Your task to perform on an android device: change the clock display to analog Image 0: 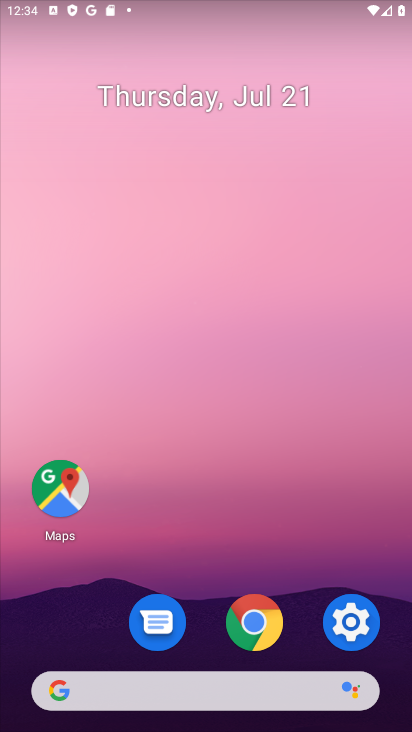
Step 0: drag from (207, 707) to (320, 135)
Your task to perform on an android device: change the clock display to analog Image 1: 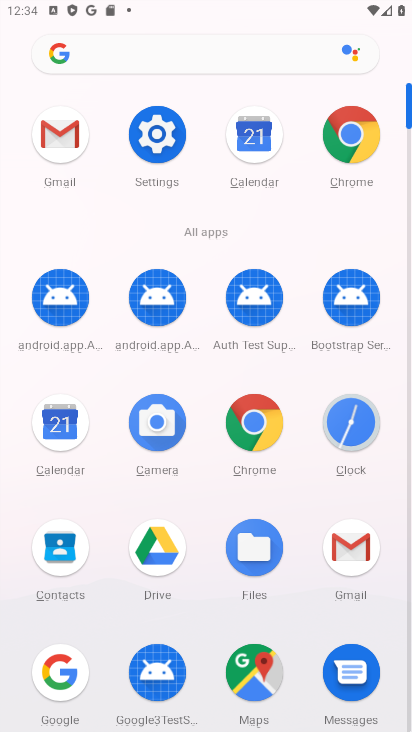
Step 1: click (336, 416)
Your task to perform on an android device: change the clock display to analog Image 2: 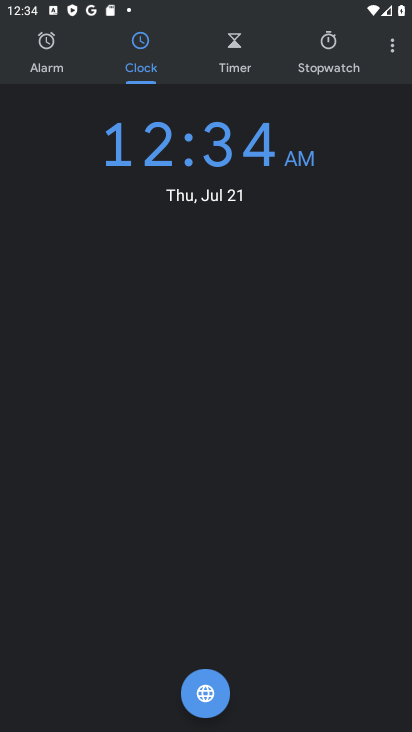
Step 2: click (395, 41)
Your task to perform on an android device: change the clock display to analog Image 3: 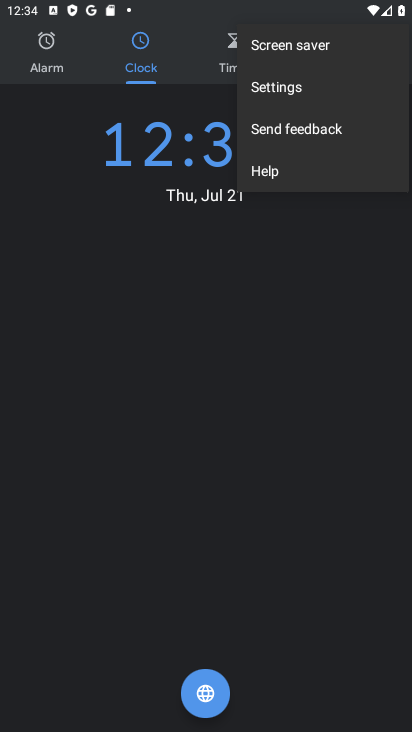
Step 3: click (259, 96)
Your task to perform on an android device: change the clock display to analog Image 4: 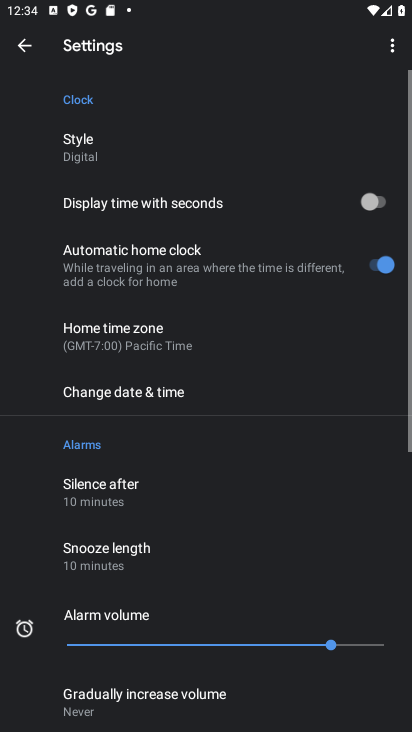
Step 4: click (151, 135)
Your task to perform on an android device: change the clock display to analog Image 5: 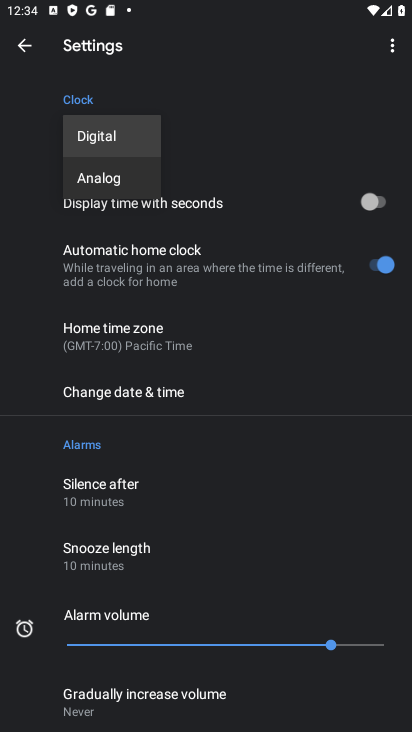
Step 5: click (109, 174)
Your task to perform on an android device: change the clock display to analog Image 6: 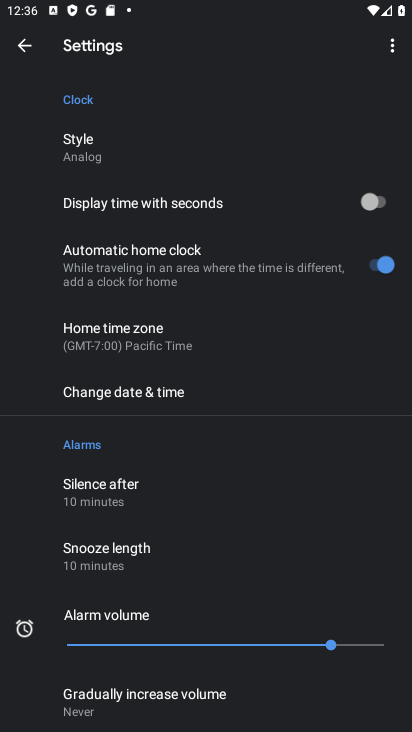
Step 6: task complete